Your task to perform on an android device: open the mobile data screen to see how much data has been used Image 0: 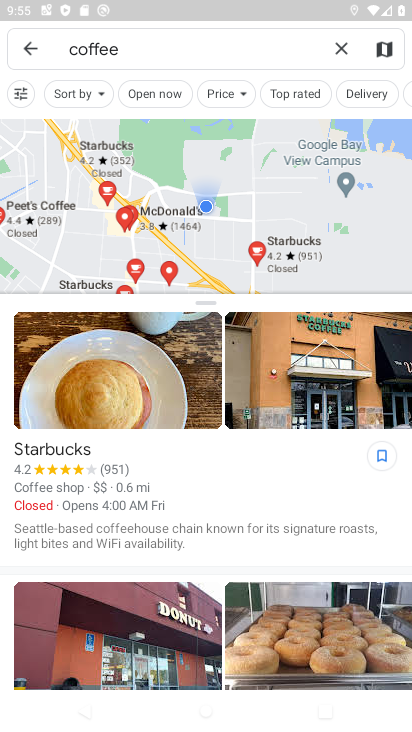
Step 0: press home button
Your task to perform on an android device: open the mobile data screen to see how much data has been used Image 1: 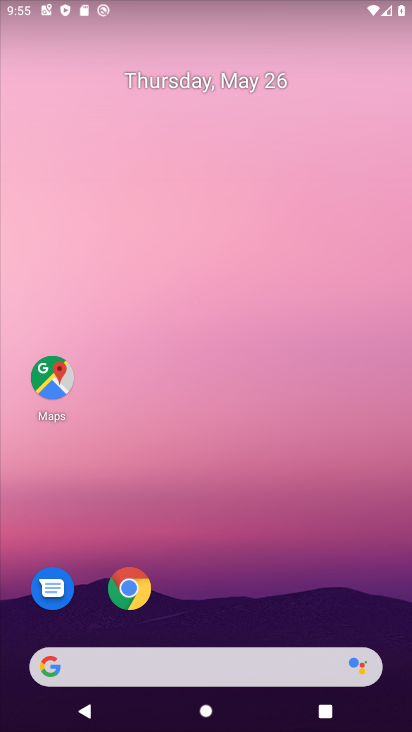
Step 1: drag from (220, 718) to (226, 0)
Your task to perform on an android device: open the mobile data screen to see how much data has been used Image 2: 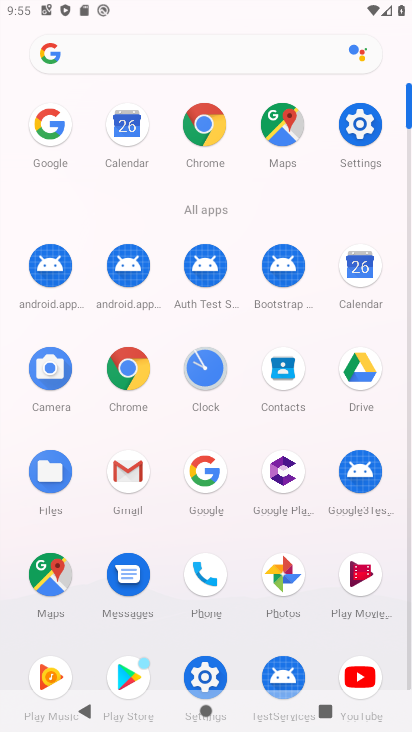
Step 2: click (357, 130)
Your task to perform on an android device: open the mobile data screen to see how much data has been used Image 3: 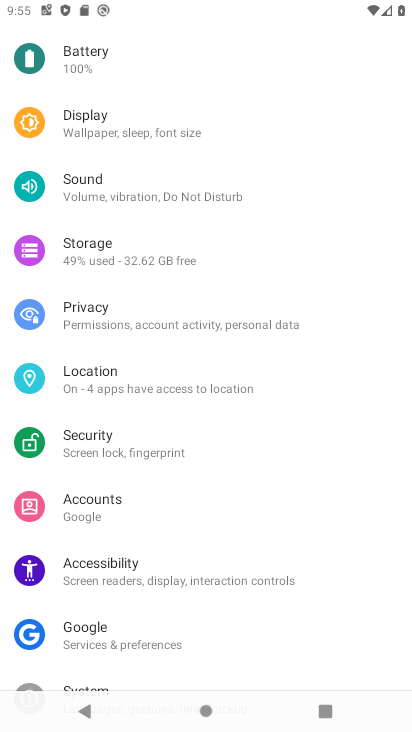
Step 3: drag from (155, 95) to (126, 577)
Your task to perform on an android device: open the mobile data screen to see how much data has been used Image 4: 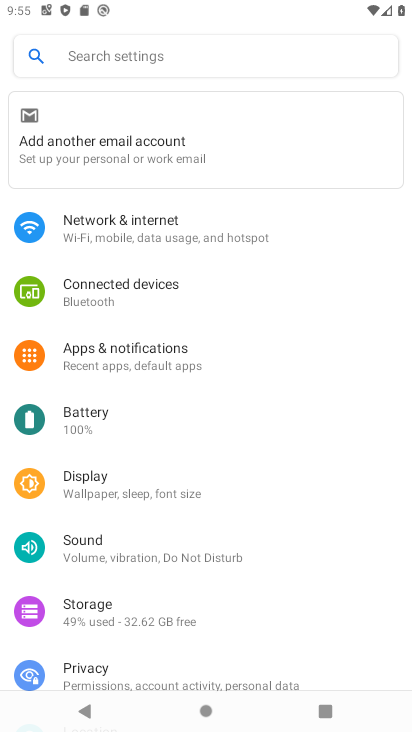
Step 4: click (142, 235)
Your task to perform on an android device: open the mobile data screen to see how much data has been used Image 5: 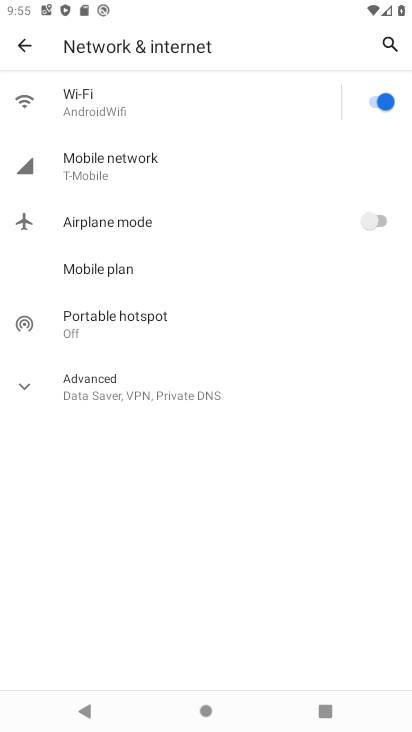
Step 5: click (84, 156)
Your task to perform on an android device: open the mobile data screen to see how much data has been used Image 6: 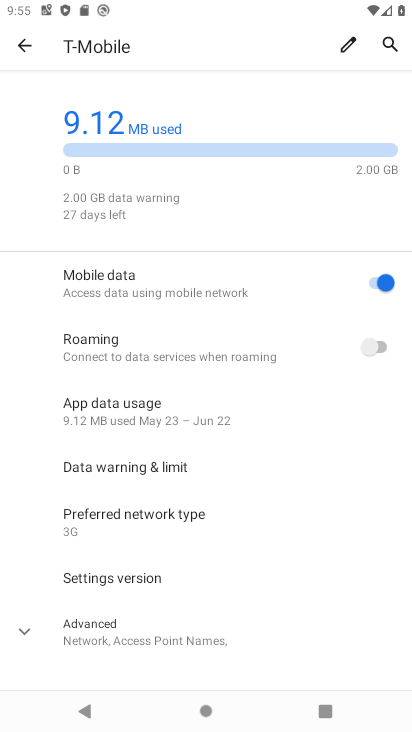
Step 6: click (119, 405)
Your task to perform on an android device: open the mobile data screen to see how much data has been used Image 7: 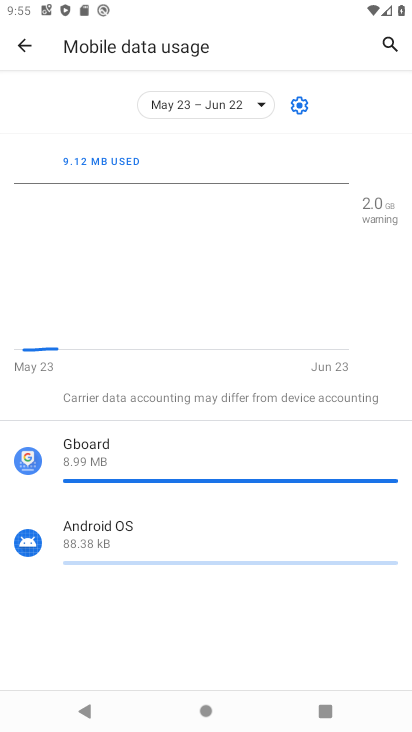
Step 7: task complete